Your task to perform on an android device: manage bookmarks in the chrome app Image 0: 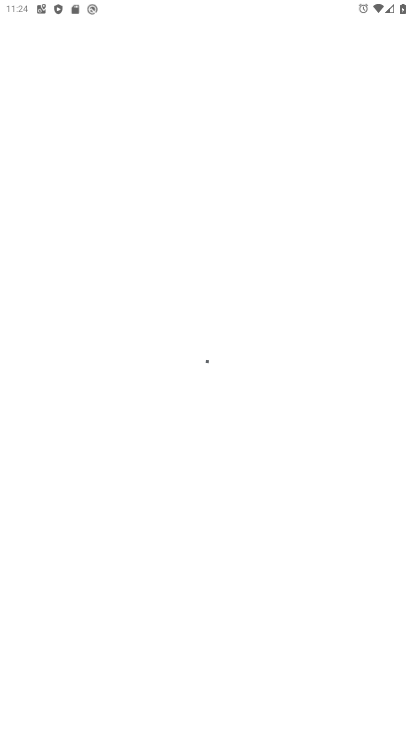
Step 0: press home button
Your task to perform on an android device: manage bookmarks in the chrome app Image 1: 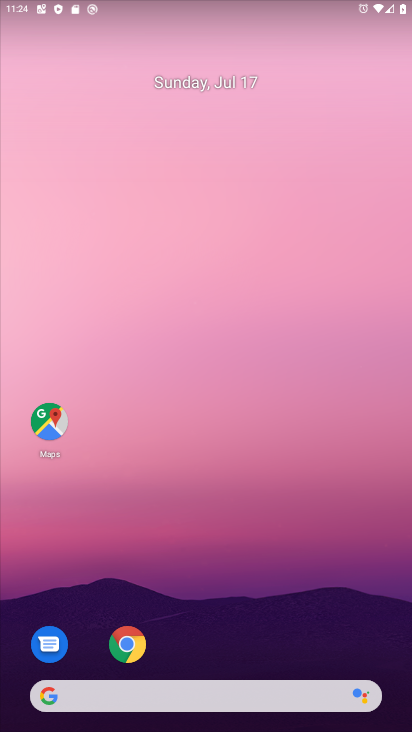
Step 1: drag from (286, 604) to (202, 13)
Your task to perform on an android device: manage bookmarks in the chrome app Image 2: 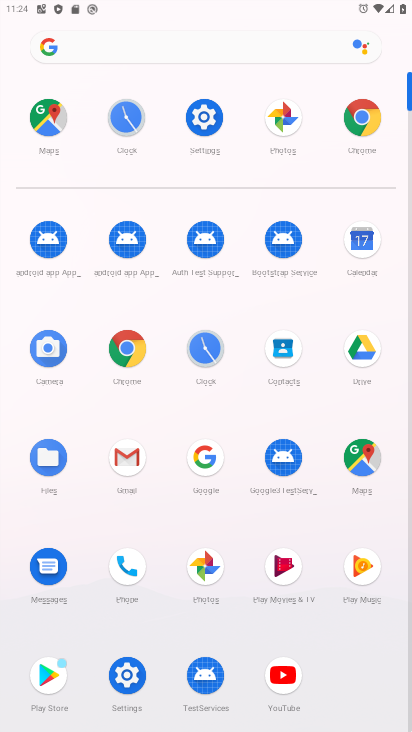
Step 2: click (359, 115)
Your task to perform on an android device: manage bookmarks in the chrome app Image 3: 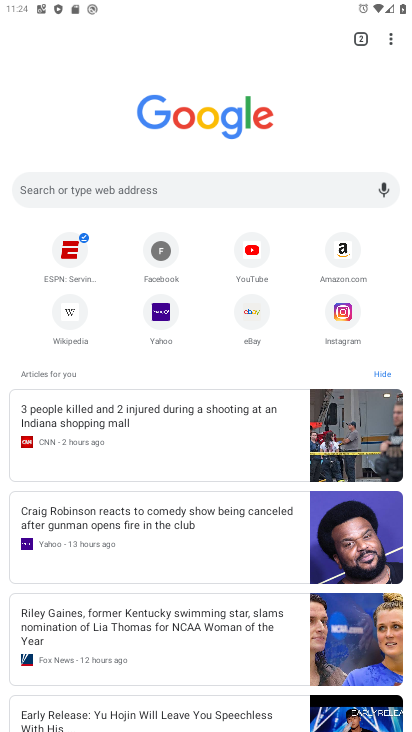
Step 3: drag from (389, 37) to (252, 153)
Your task to perform on an android device: manage bookmarks in the chrome app Image 4: 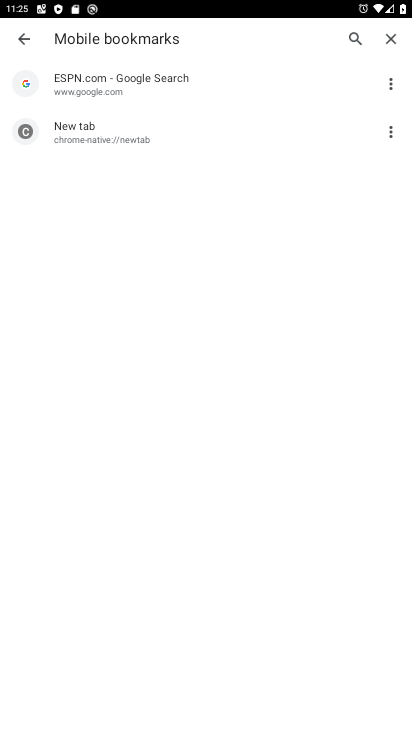
Step 4: click (390, 84)
Your task to perform on an android device: manage bookmarks in the chrome app Image 5: 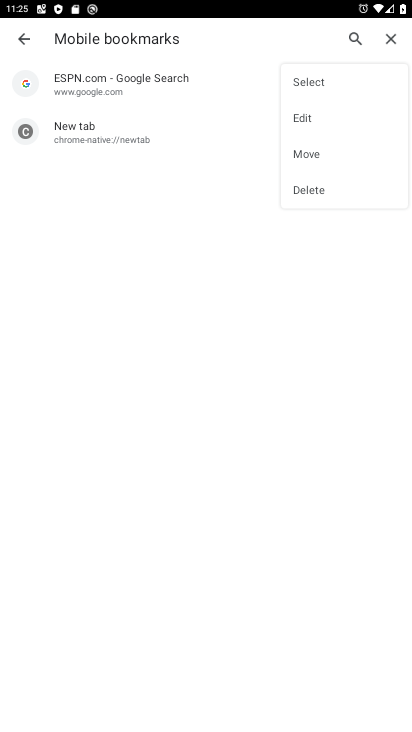
Step 5: click (312, 189)
Your task to perform on an android device: manage bookmarks in the chrome app Image 6: 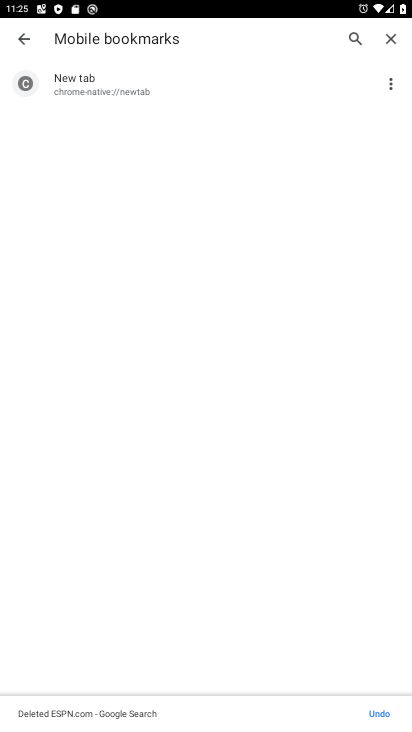
Step 6: task complete